Your task to perform on an android device: Go to internet settings Image 0: 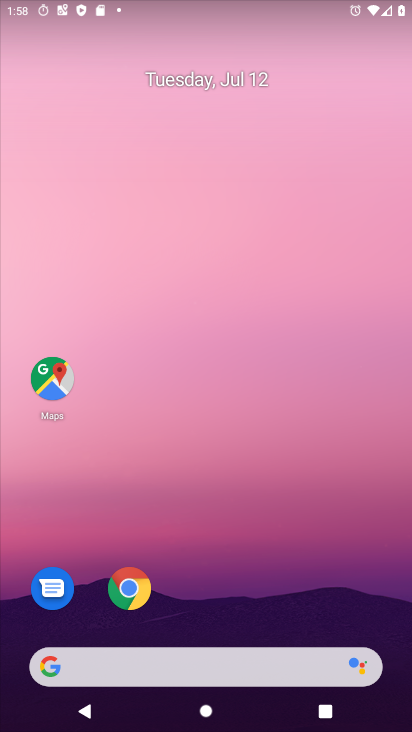
Step 0: click (316, 123)
Your task to perform on an android device: Go to internet settings Image 1: 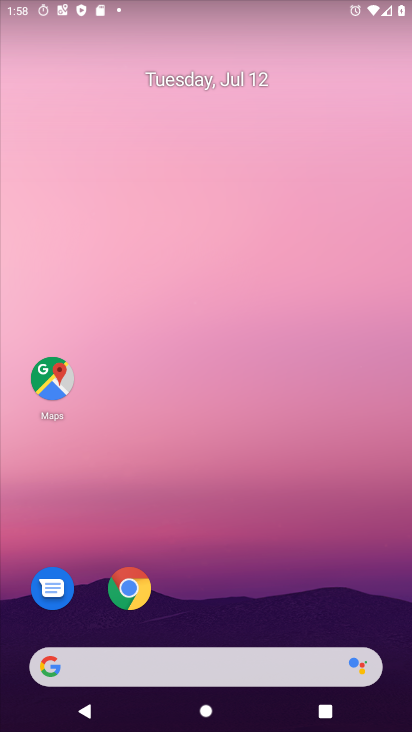
Step 1: drag from (186, 628) to (321, 62)
Your task to perform on an android device: Go to internet settings Image 2: 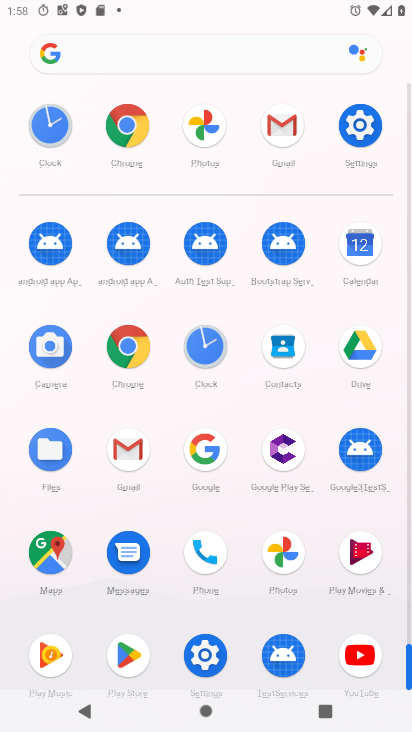
Step 2: click (356, 128)
Your task to perform on an android device: Go to internet settings Image 3: 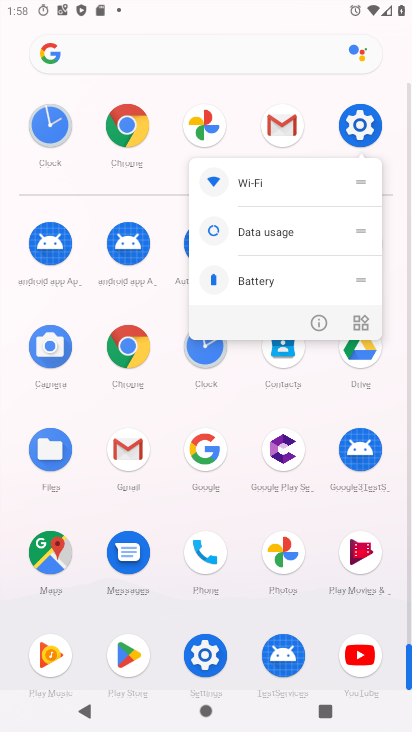
Step 3: click (317, 326)
Your task to perform on an android device: Go to internet settings Image 4: 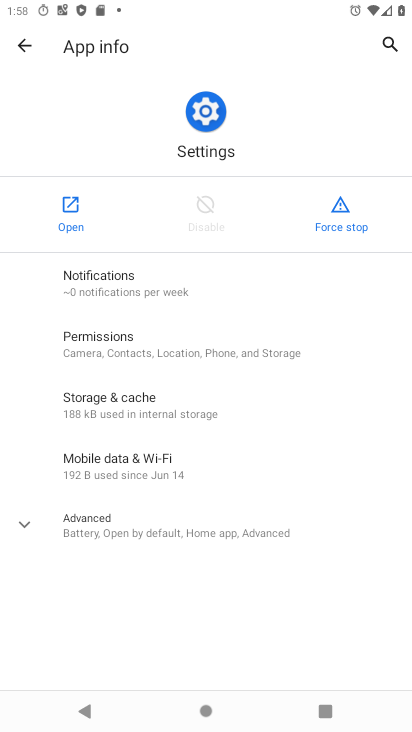
Step 4: click (60, 201)
Your task to perform on an android device: Go to internet settings Image 5: 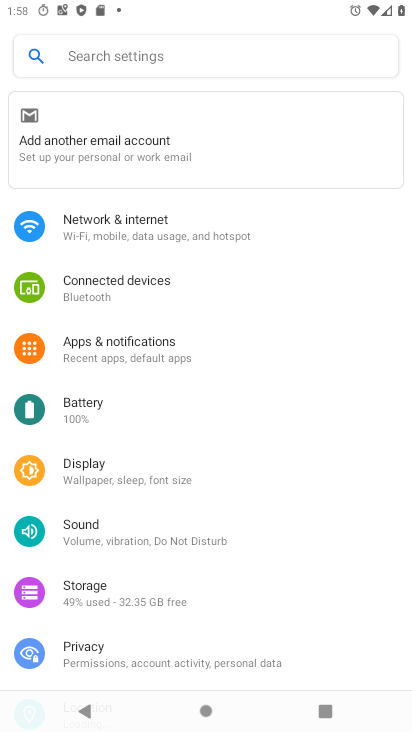
Step 5: drag from (162, 550) to (269, 249)
Your task to perform on an android device: Go to internet settings Image 6: 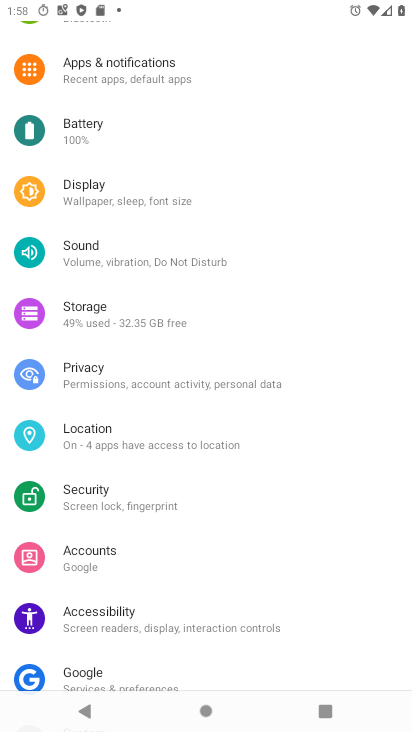
Step 6: drag from (283, 197) to (214, 694)
Your task to perform on an android device: Go to internet settings Image 7: 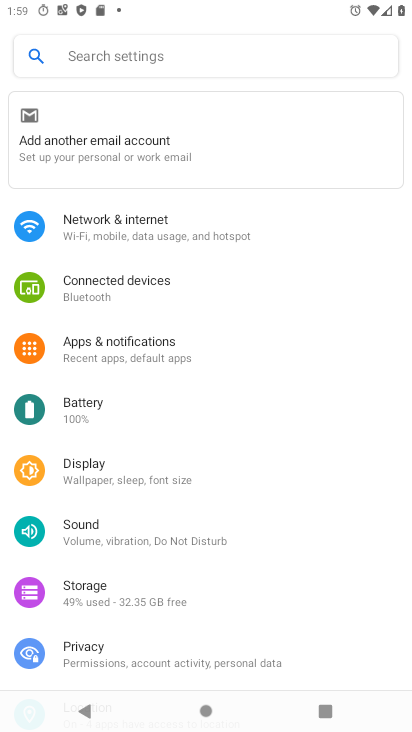
Step 7: click (181, 214)
Your task to perform on an android device: Go to internet settings Image 8: 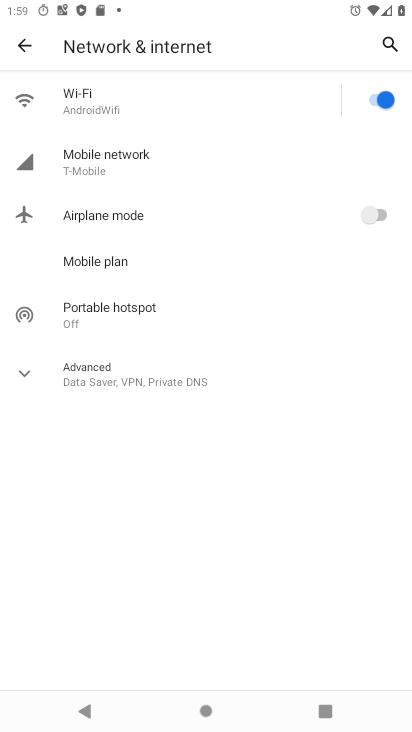
Step 8: drag from (131, 143) to (256, 470)
Your task to perform on an android device: Go to internet settings Image 9: 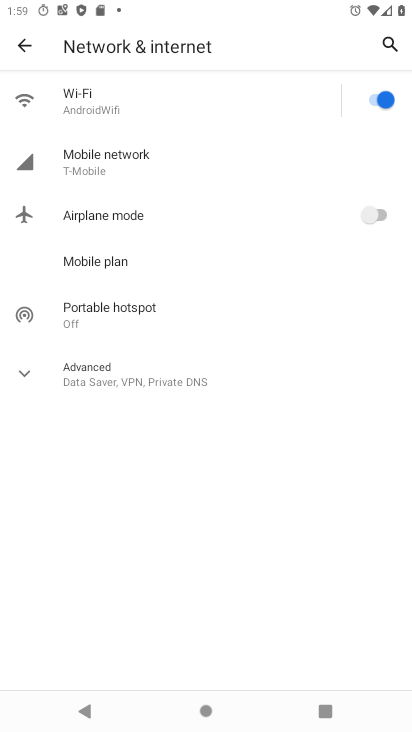
Step 9: drag from (256, 397) to (296, 17)
Your task to perform on an android device: Go to internet settings Image 10: 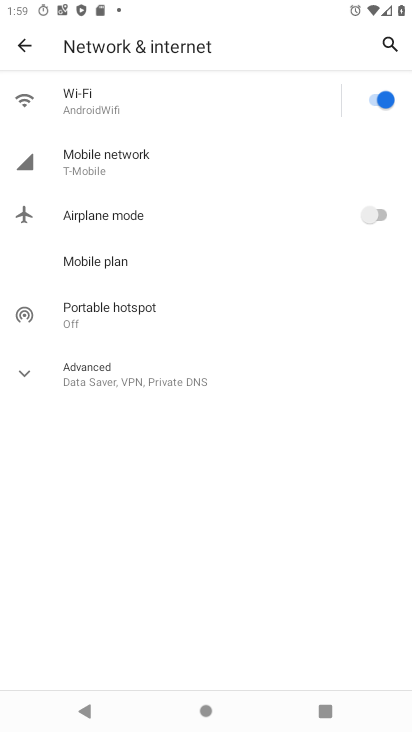
Step 10: drag from (201, 91) to (202, 288)
Your task to perform on an android device: Go to internet settings Image 11: 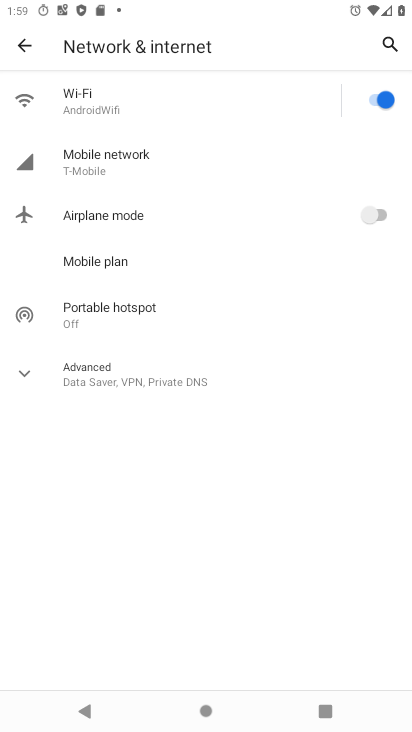
Step 11: drag from (208, 85) to (248, 467)
Your task to perform on an android device: Go to internet settings Image 12: 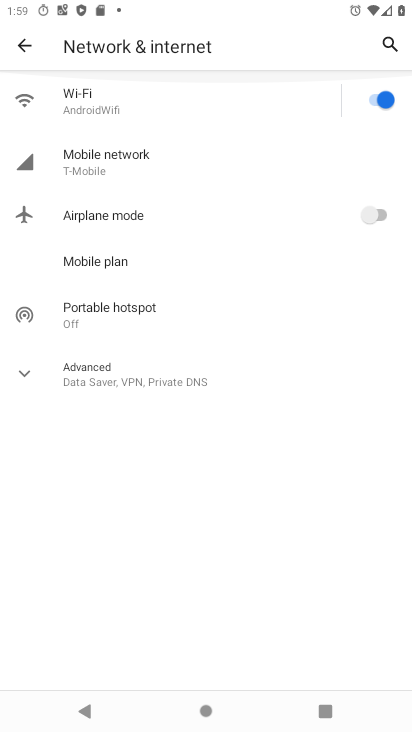
Step 12: drag from (241, 458) to (261, 109)
Your task to perform on an android device: Go to internet settings Image 13: 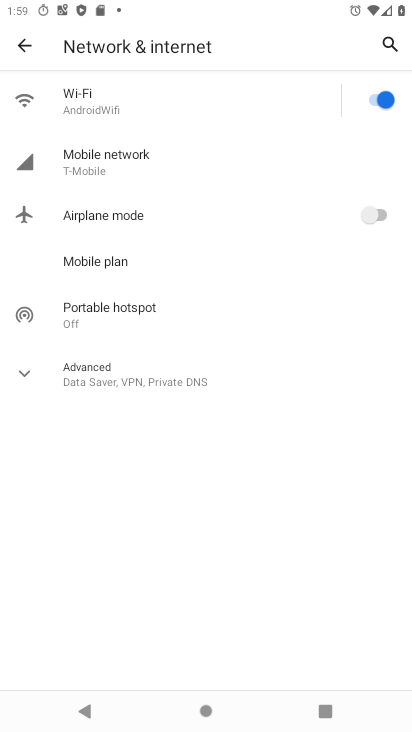
Step 13: click (242, 50)
Your task to perform on an android device: Go to internet settings Image 14: 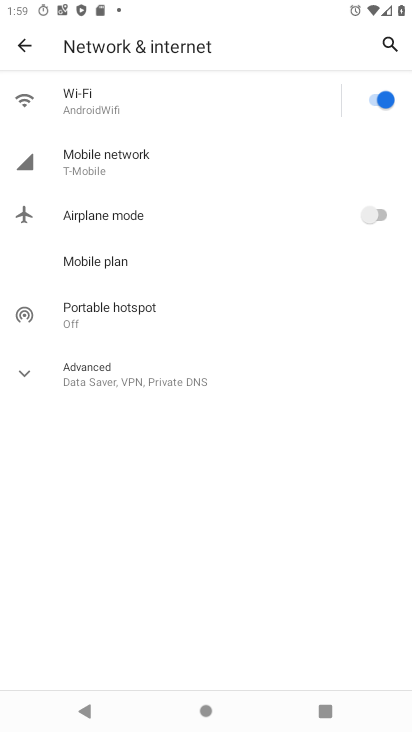
Step 14: drag from (162, 135) to (179, 432)
Your task to perform on an android device: Go to internet settings Image 15: 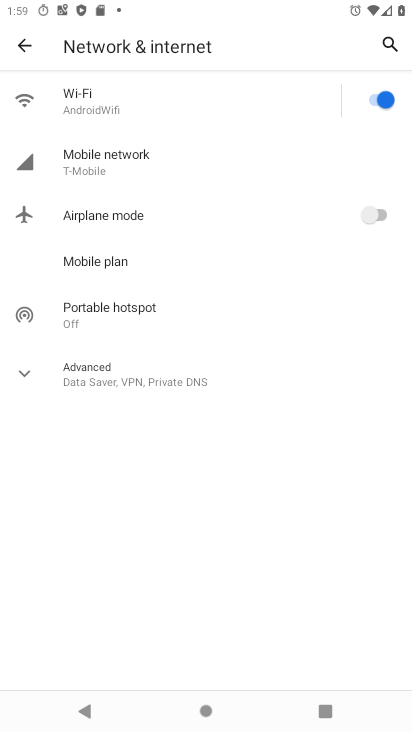
Step 15: drag from (198, 399) to (217, 172)
Your task to perform on an android device: Go to internet settings Image 16: 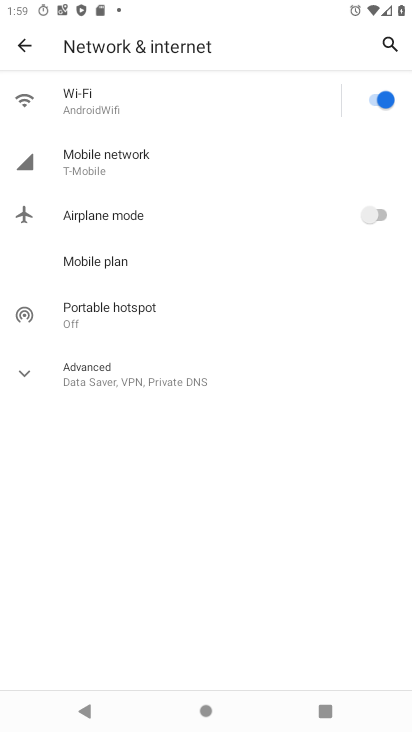
Step 16: click (207, 49)
Your task to perform on an android device: Go to internet settings Image 17: 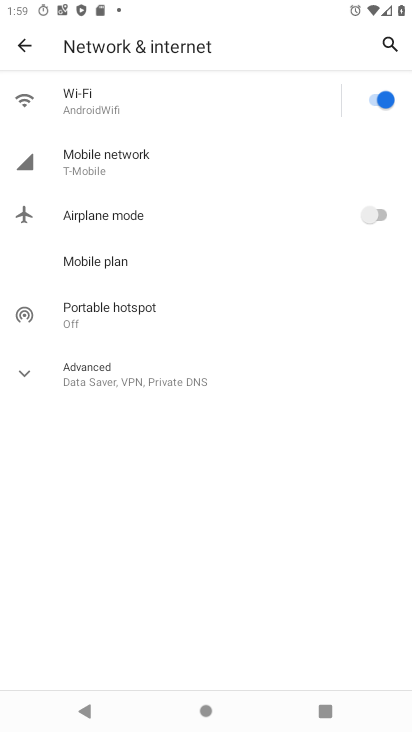
Step 17: task complete